Your task to perform on an android device: Open display settings Image 0: 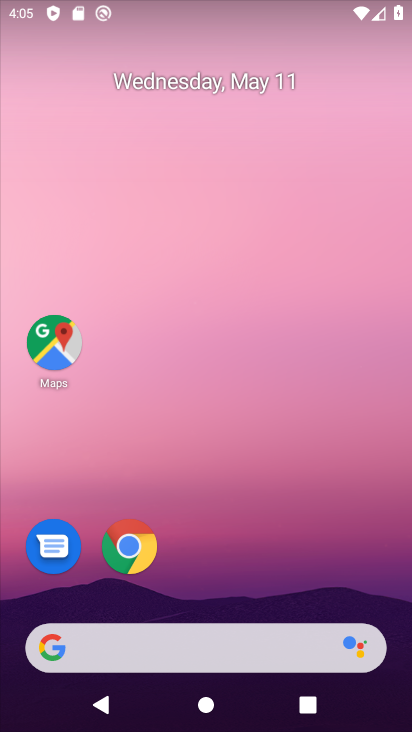
Step 0: click (208, 153)
Your task to perform on an android device: Open display settings Image 1: 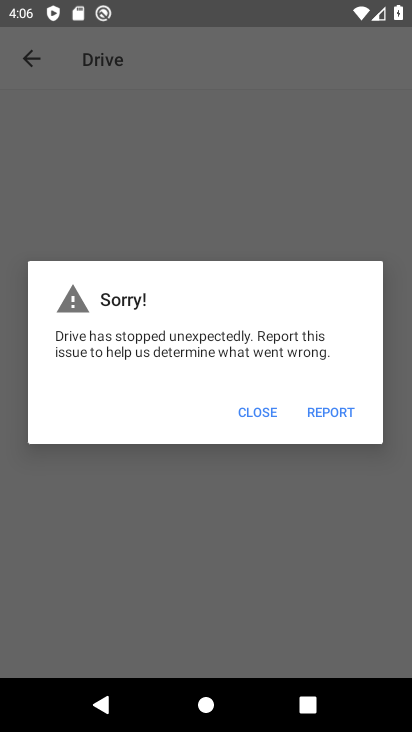
Step 1: click (254, 410)
Your task to perform on an android device: Open display settings Image 2: 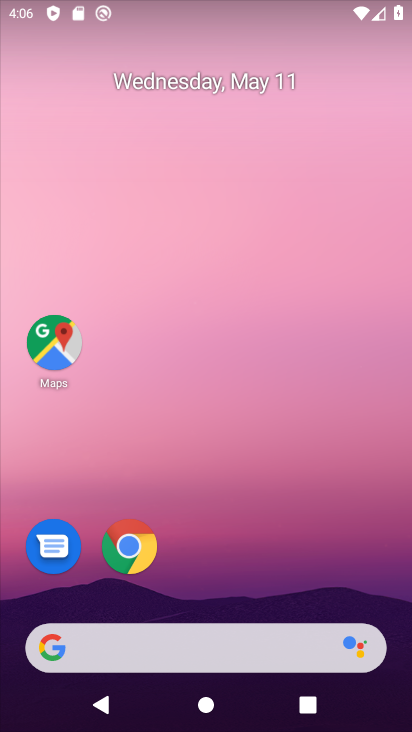
Step 2: drag from (206, 623) to (204, 235)
Your task to perform on an android device: Open display settings Image 3: 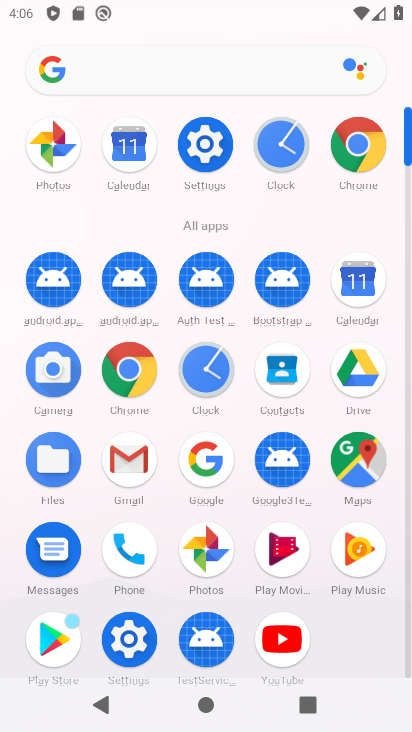
Step 3: click (194, 153)
Your task to perform on an android device: Open display settings Image 4: 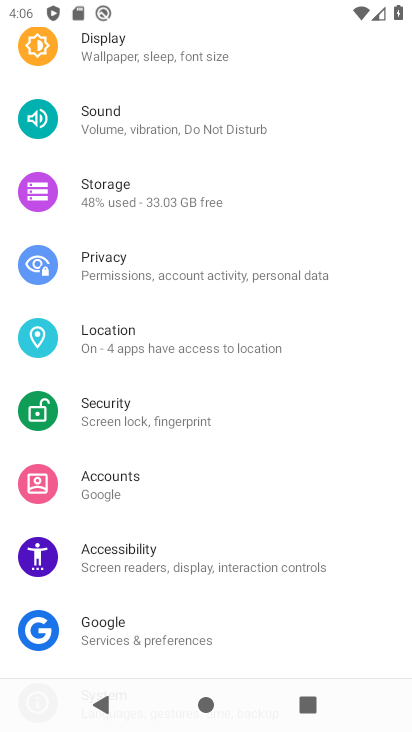
Step 4: click (122, 41)
Your task to perform on an android device: Open display settings Image 5: 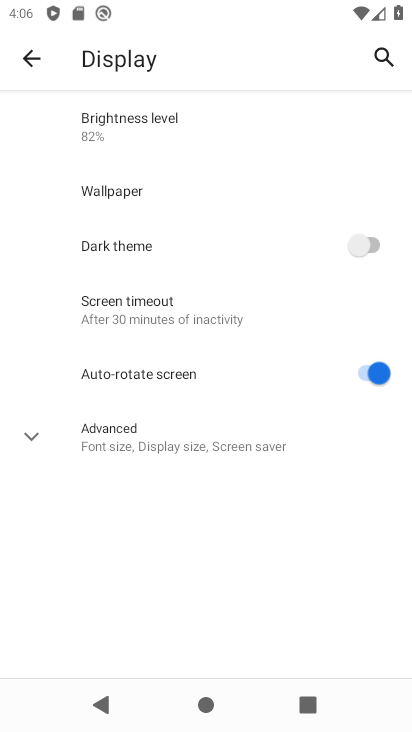
Step 5: click (171, 437)
Your task to perform on an android device: Open display settings Image 6: 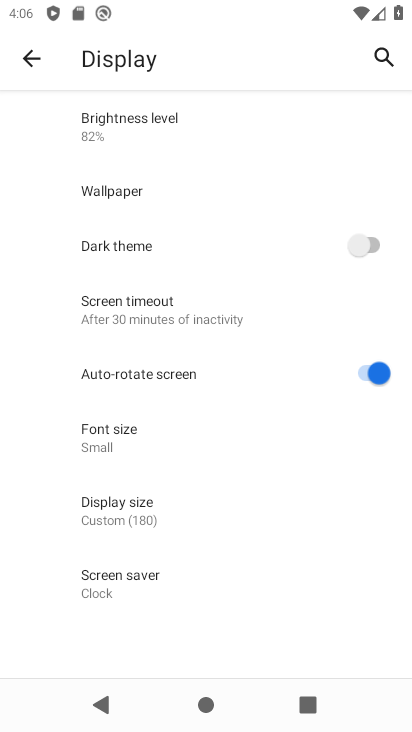
Step 6: task complete